Your task to perform on an android device: add a contact Image 0: 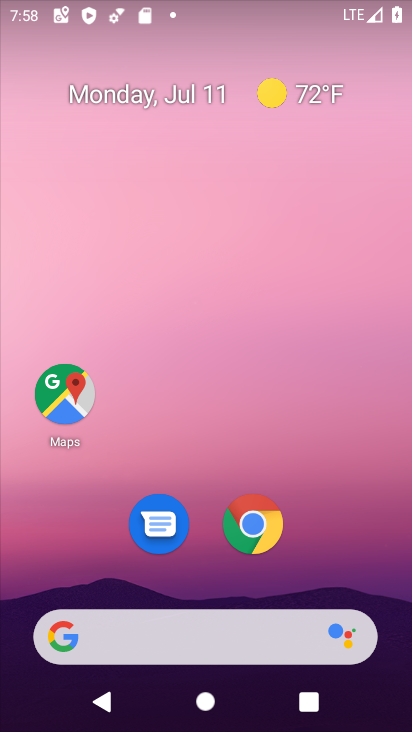
Step 0: drag from (217, 437) to (180, 0)
Your task to perform on an android device: add a contact Image 1: 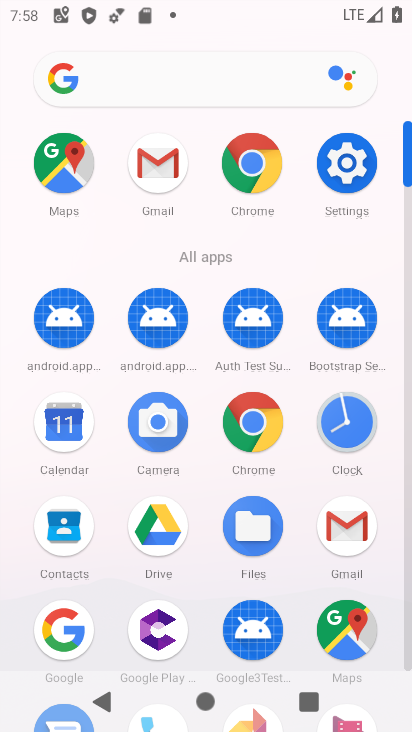
Step 1: click (68, 520)
Your task to perform on an android device: add a contact Image 2: 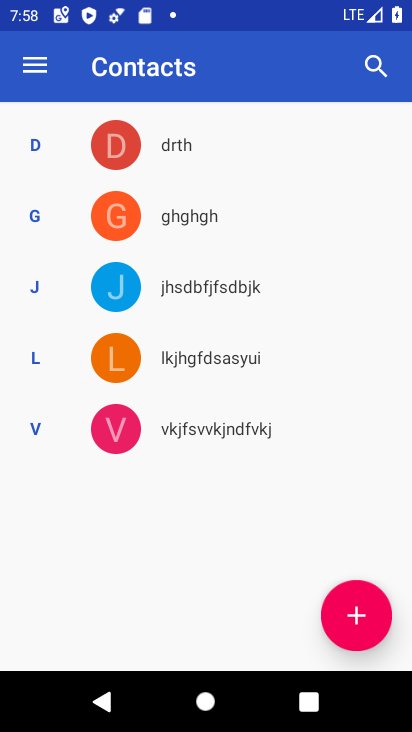
Step 2: click (355, 608)
Your task to perform on an android device: add a contact Image 3: 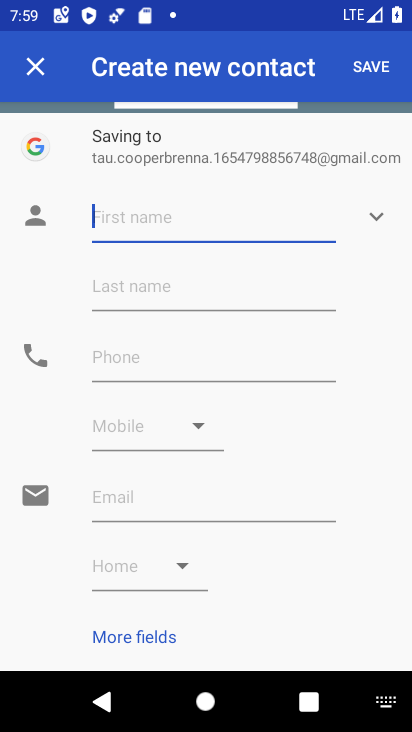
Step 3: type "Jai Shri Ram"
Your task to perform on an android device: add a contact Image 4: 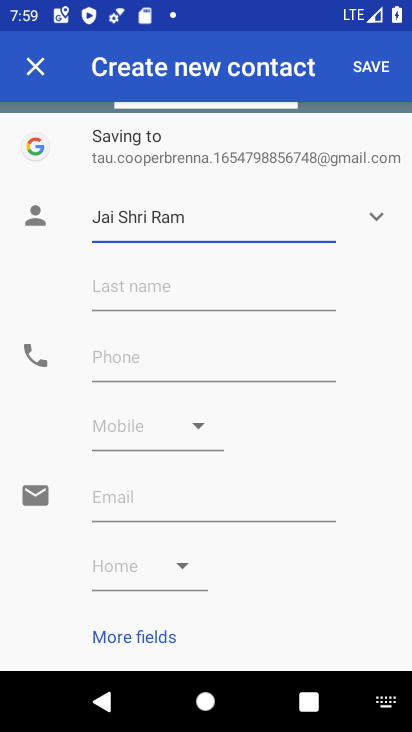
Step 4: click (202, 361)
Your task to perform on an android device: add a contact Image 5: 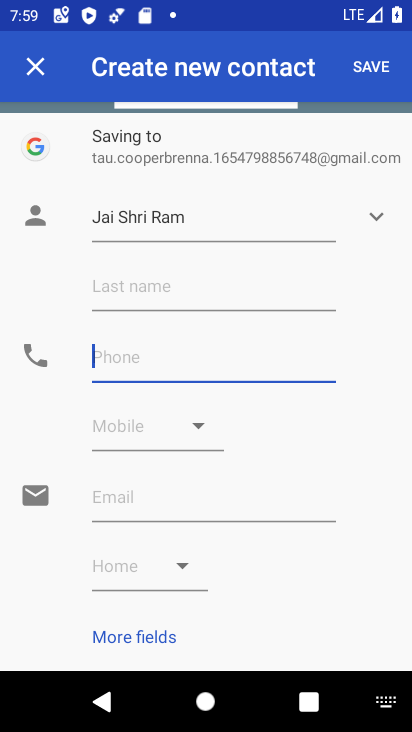
Step 5: type "99999999999"
Your task to perform on an android device: add a contact Image 6: 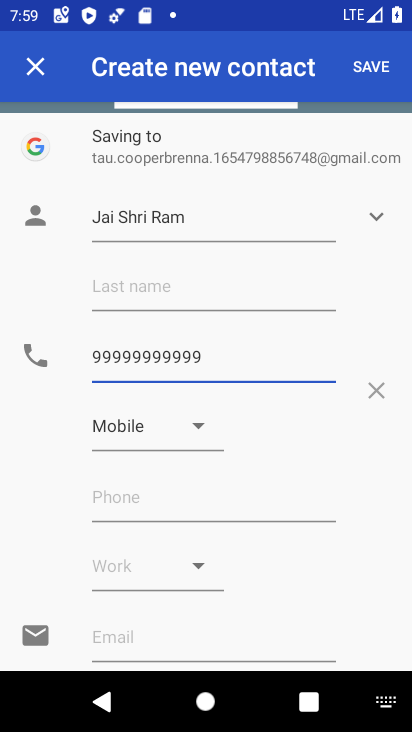
Step 6: click (375, 66)
Your task to perform on an android device: add a contact Image 7: 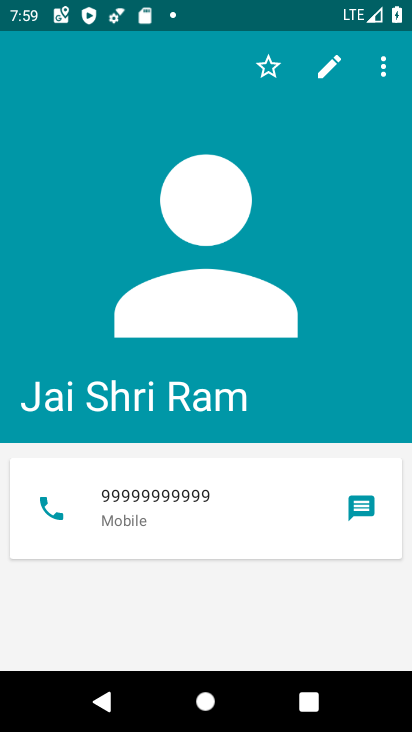
Step 7: task complete